Your task to perform on an android device: Open settings Image 0: 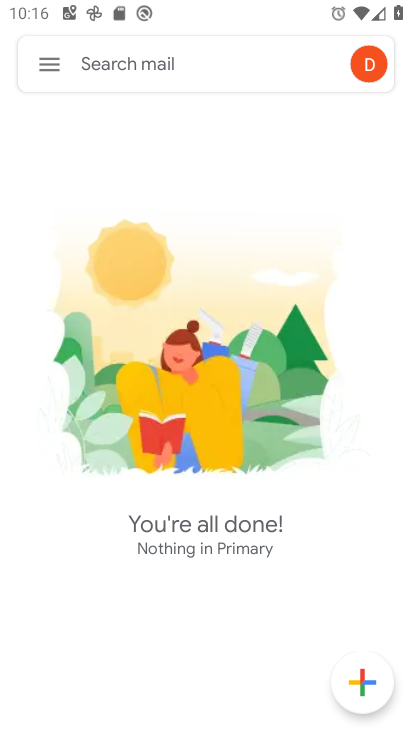
Step 0: press home button
Your task to perform on an android device: Open settings Image 1: 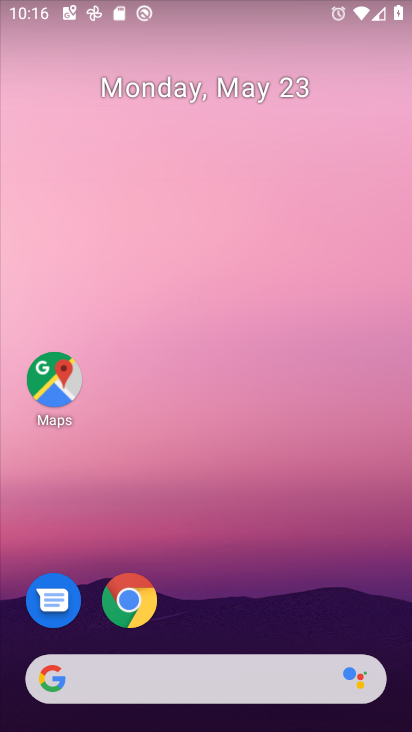
Step 1: drag from (203, 666) to (197, 96)
Your task to perform on an android device: Open settings Image 2: 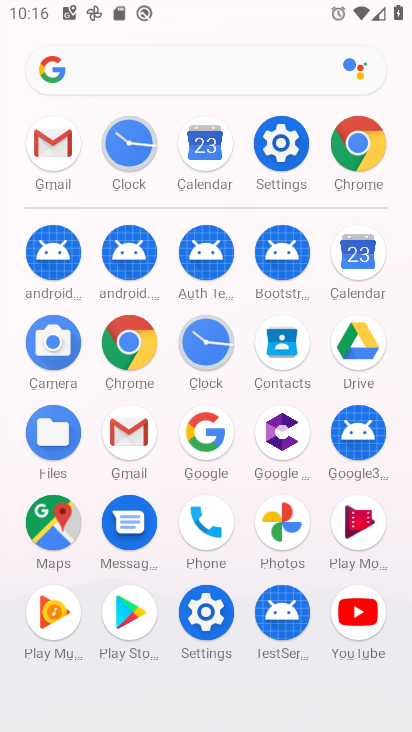
Step 2: click (273, 146)
Your task to perform on an android device: Open settings Image 3: 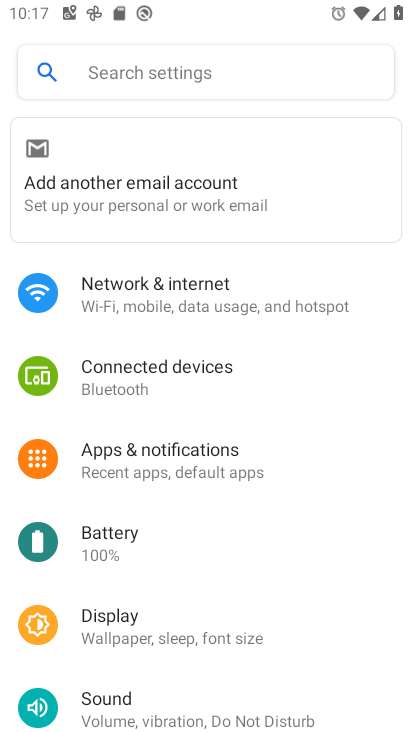
Step 3: task complete